Your task to perform on an android device: add a label to a message in the gmail app Image 0: 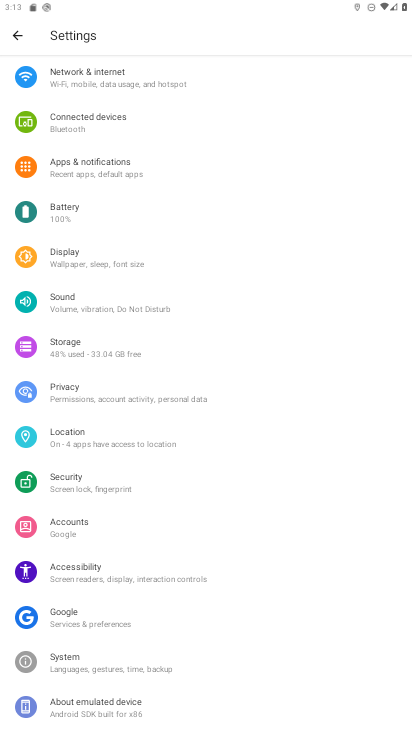
Step 0: press home button
Your task to perform on an android device: add a label to a message in the gmail app Image 1: 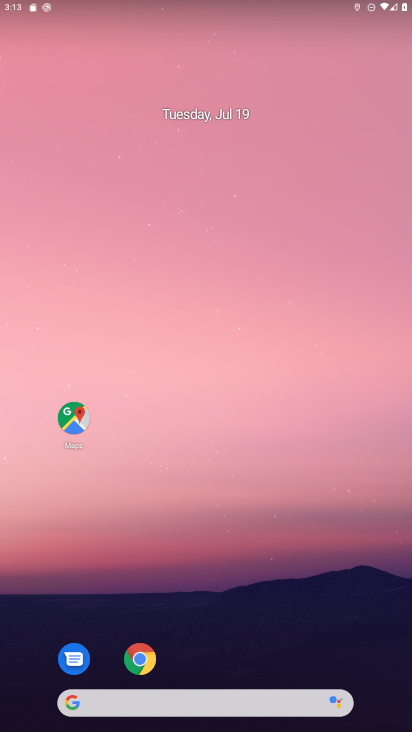
Step 1: drag from (226, 653) to (237, 192)
Your task to perform on an android device: add a label to a message in the gmail app Image 2: 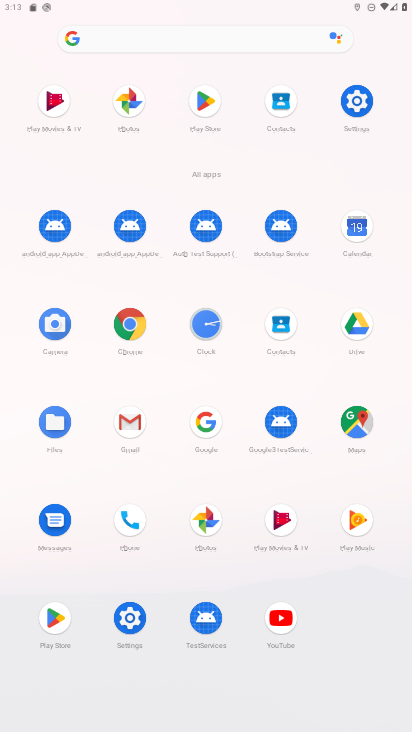
Step 2: click (133, 423)
Your task to perform on an android device: add a label to a message in the gmail app Image 3: 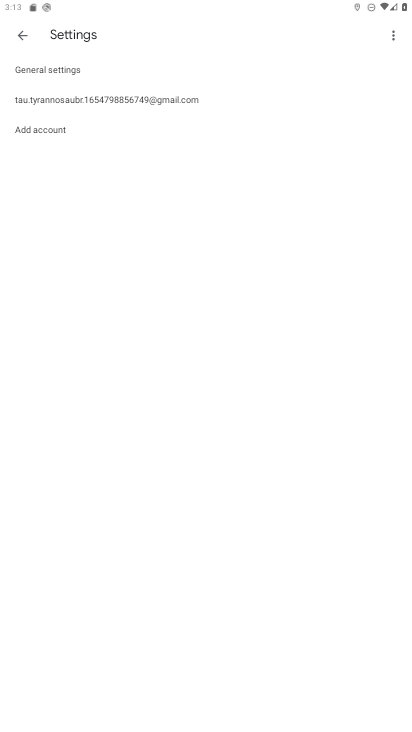
Step 3: click (22, 40)
Your task to perform on an android device: add a label to a message in the gmail app Image 4: 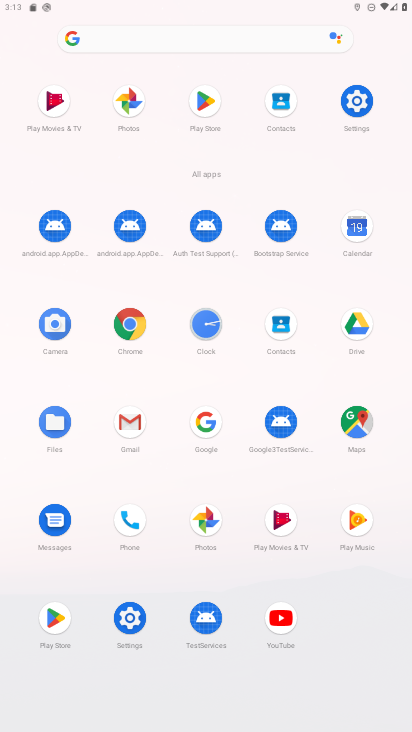
Step 4: click (127, 420)
Your task to perform on an android device: add a label to a message in the gmail app Image 5: 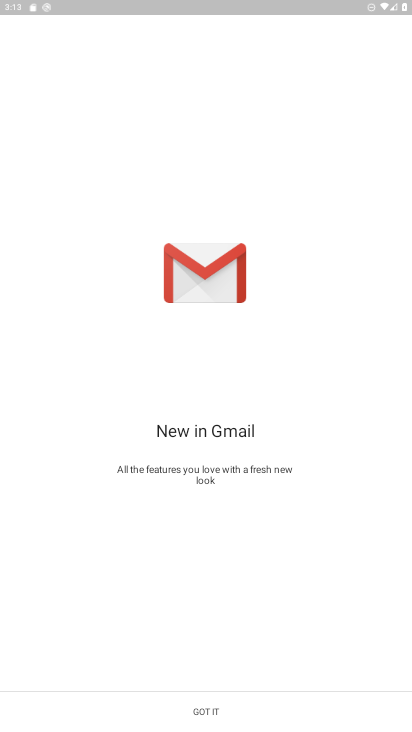
Step 5: click (250, 704)
Your task to perform on an android device: add a label to a message in the gmail app Image 6: 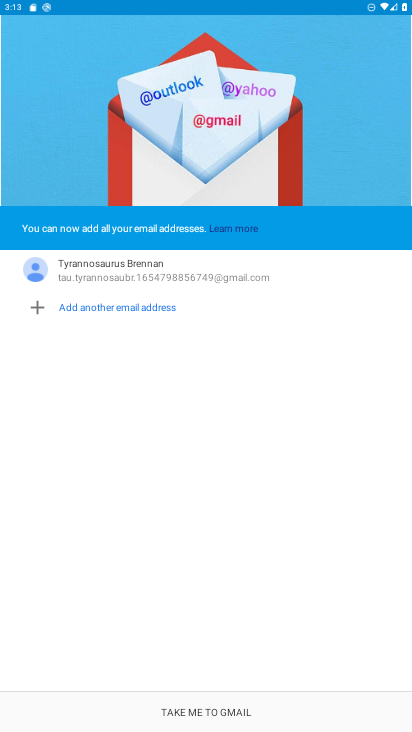
Step 6: click (241, 705)
Your task to perform on an android device: add a label to a message in the gmail app Image 7: 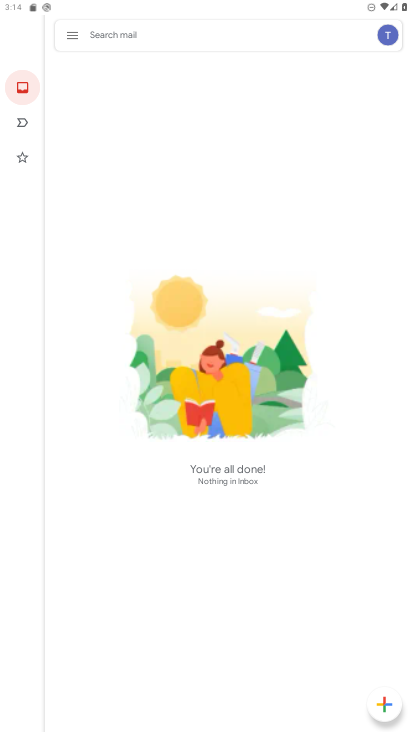
Step 7: click (74, 34)
Your task to perform on an android device: add a label to a message in the gmail app Image 8: 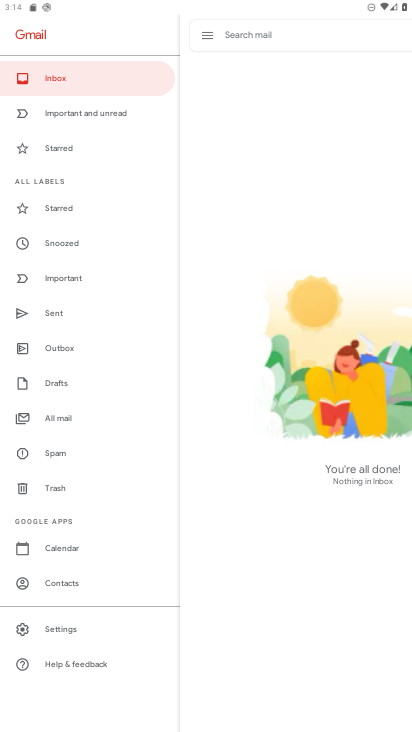
Step 8: click (66, 419)
Your task to perform on an android device: add a label to a message in the gmail app Image 9: 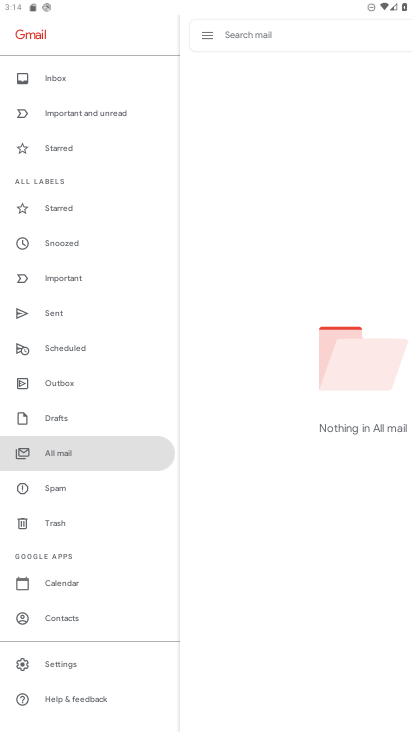
Step 9: task complete